Your task to perform on an android device: turn on notifications settings in the gmail app Image 0: 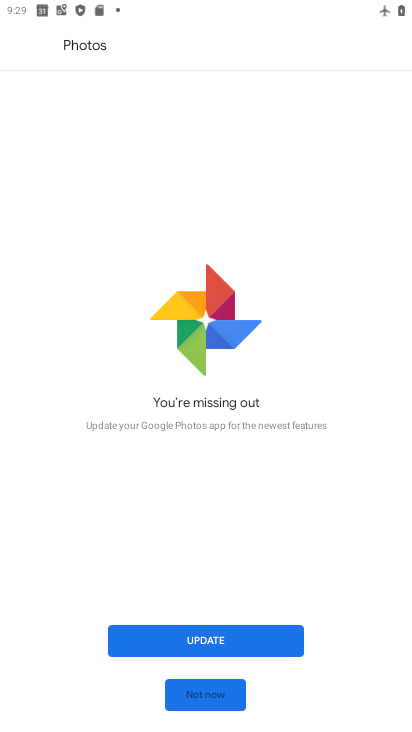
Step 0: press home button
Your task to perform on an android device: turn on notifications settings in the gmail app Image 1: 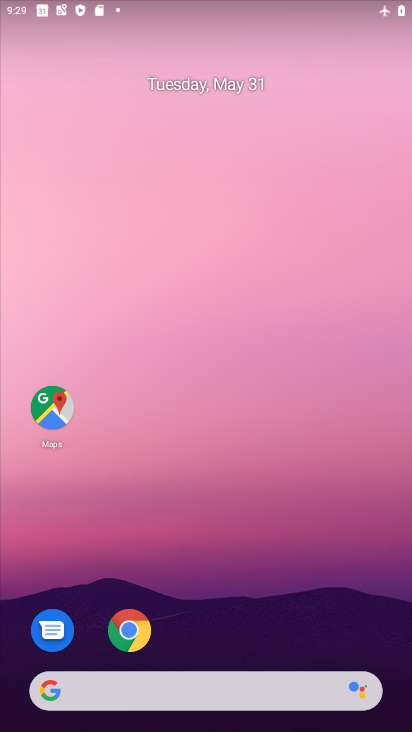
Step 1: drag from (253, 625) to (272, 249)
Your task to perform on an android device: turn on notifications settings in the gmail app Image 2: 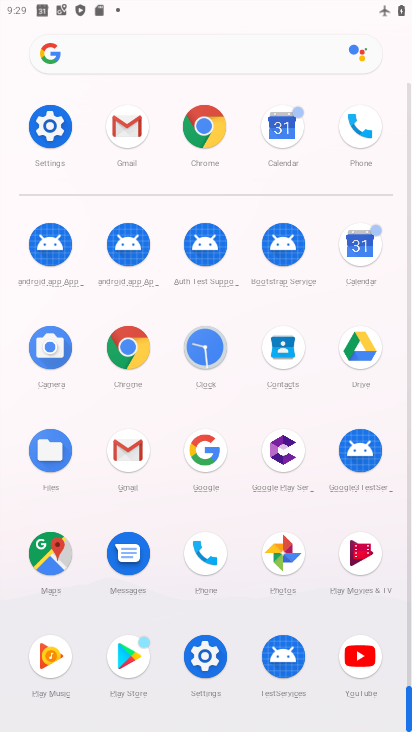
Step 2: click (130, 458)
Your task to perform on an android device: turn on notifications settings in the gmail app Image 3: 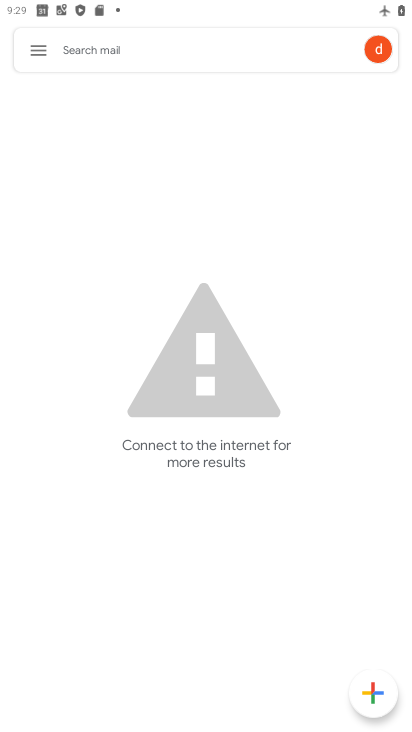
Step 3: click (32, 39)
Your task to perform on an android device: turn on notifications settings in the gmail app Image 4: 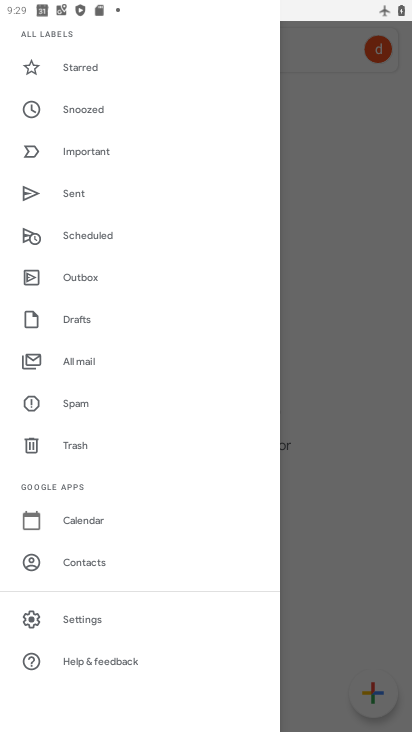
Step 4: click (100, 620)
Your task to perform on an android device: turn on notifications settings in the gmail app Image 5: 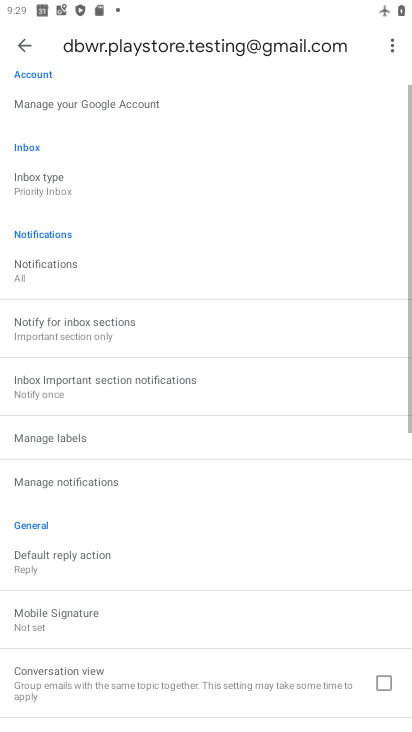
Step 5: click (89, 259)
Your task to perform on an android device: turn on notifications settings in the gmail app Image 6: 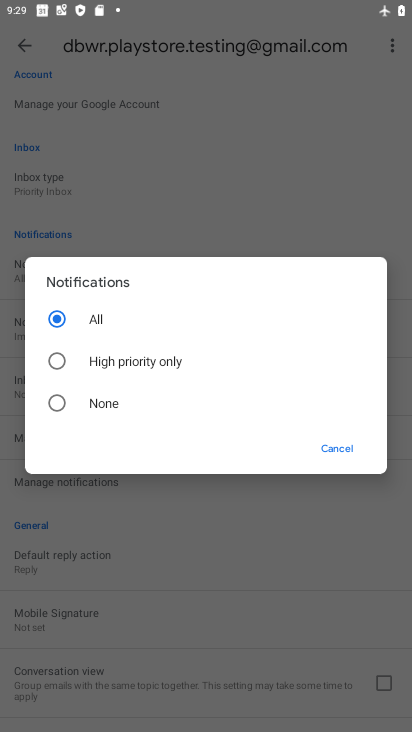
Step 6: click (346, 449)
Your task to perform on an android device: turn on notifications settings in the gmail app Image 7: 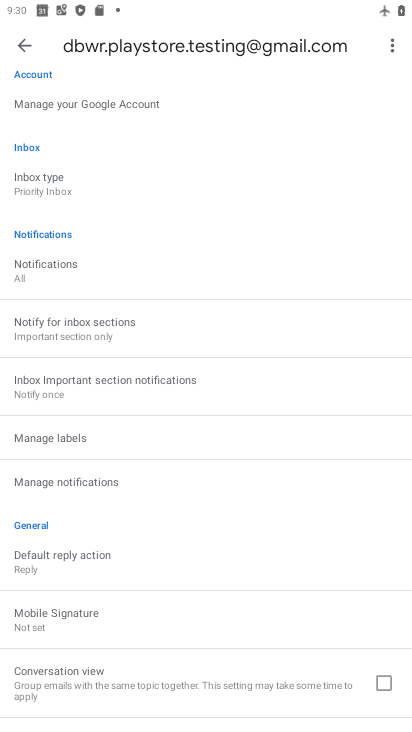
Step 7: task complete